Your task to perform on an android device: toggle translation in the chrome app Image 0: 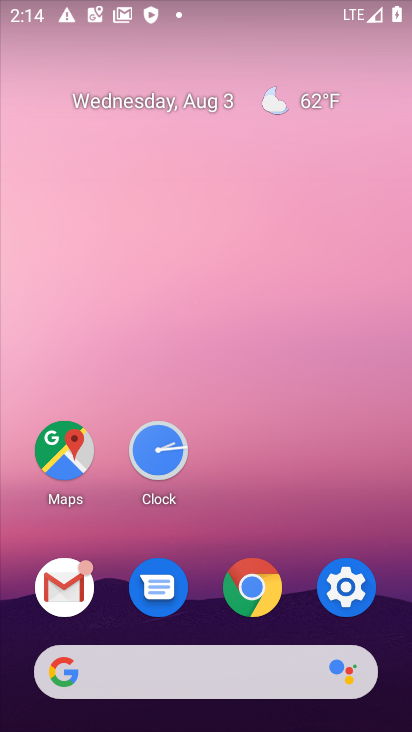
Step 0: click (252, 588)
Your task to perform on an android device: toggle translation in the chrome app Image 1: 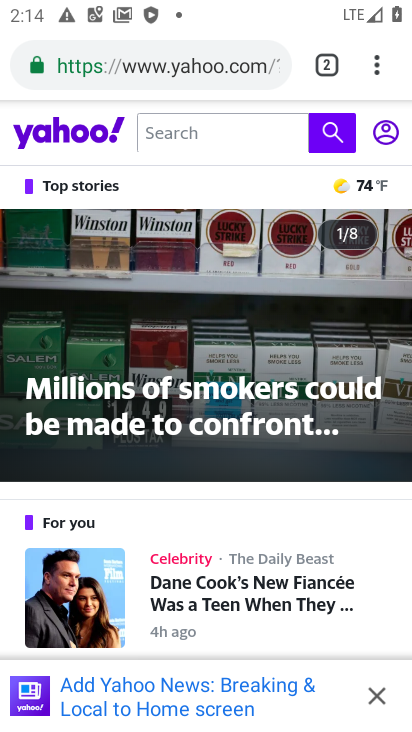
Step 1: click (383, 56)
Your task to perform on an android device: toggle translation in the chrome app Image 2: 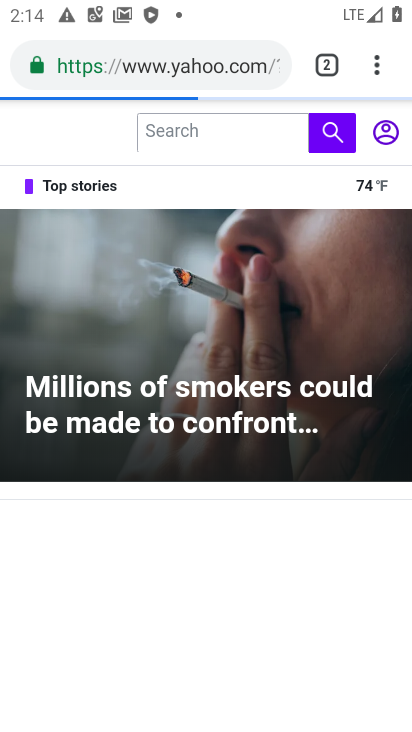
Step 2: click (377, 67)
Your task to perform on an android device: toggle translation in the chrome app Image 3: 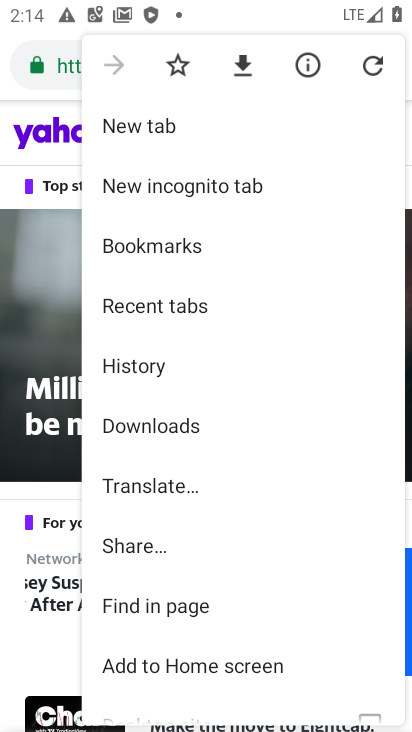
Step 3: drag from (246, 642) to (401, 435)
Your task to perform on an android device: toggle translation in the chrome app Image 4: 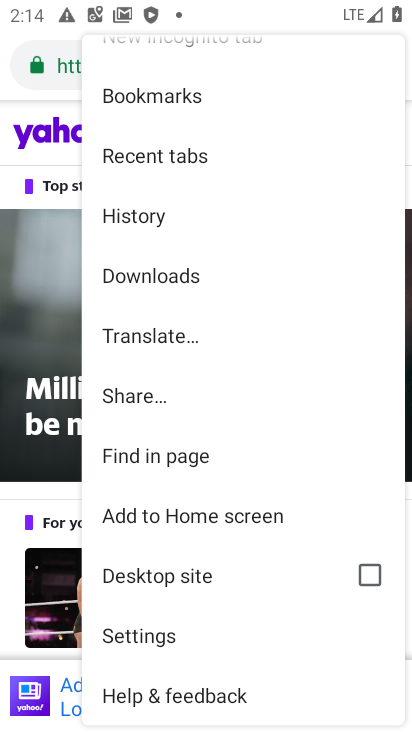
Step 4: click (152, 633)
Your task to perform on an android device: toggle translation in the chrome app Image 5: 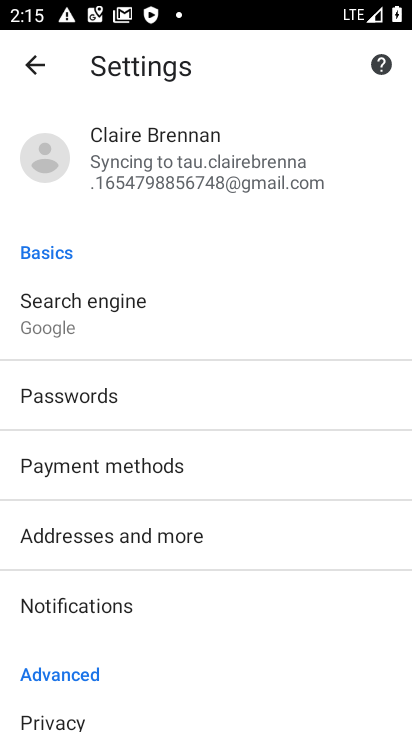
Step 5: drag from (203, 666) to (250, 312)
Your task to perform on an android device: toggle translation in the chrome app Image 6: 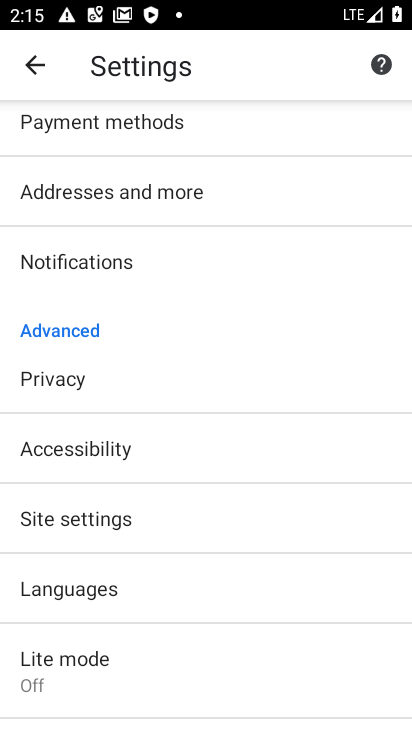
Step 6: drag from (245, 626) to (255, 311)
Your task to perform on an android device: toggle translation in the chrome app Image 7: 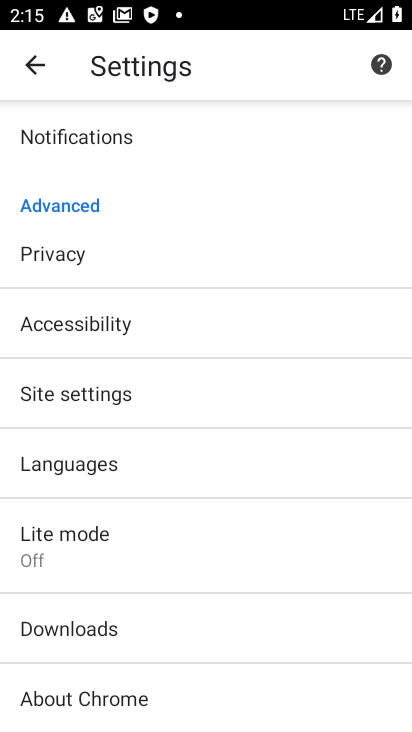
Step 7: click (73, 464)
Your task to perform on an android device: toggle translation in the chrome app Image 8: 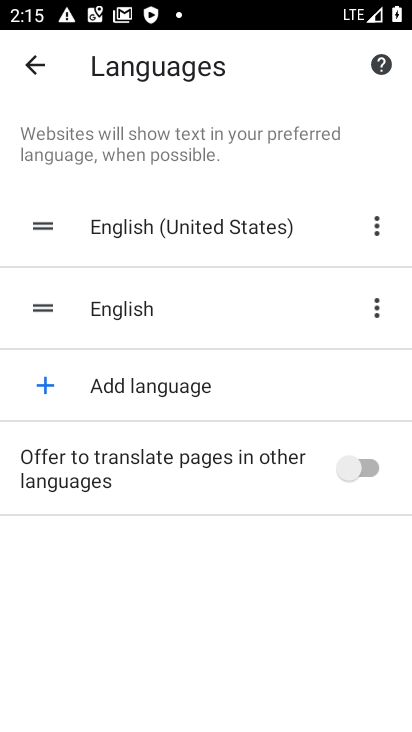
Step 8: click (368, 471)
Your task to perform on an android device: toggle translation in the chrome app Image 9: 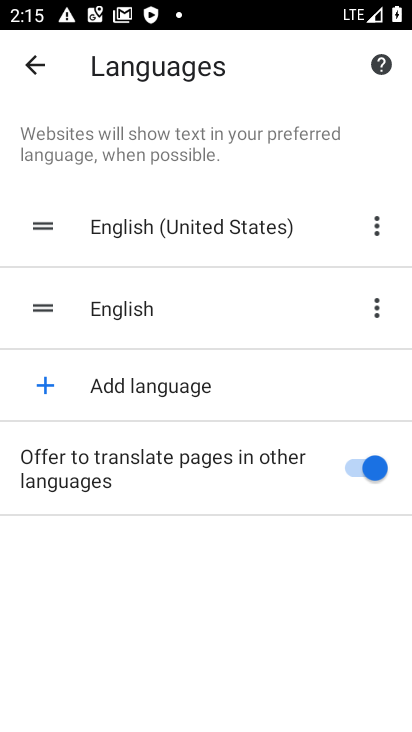
Step 9: task complete